Your task to perform on an android device: Open Google Maps Image 0: 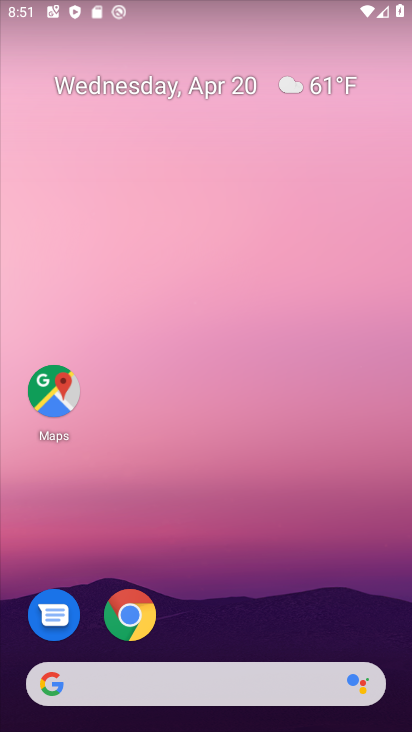
Step 0: drag from (216, 641) to (194, 3)
Your task to perform on an android device: Open Google Maps Image 1: 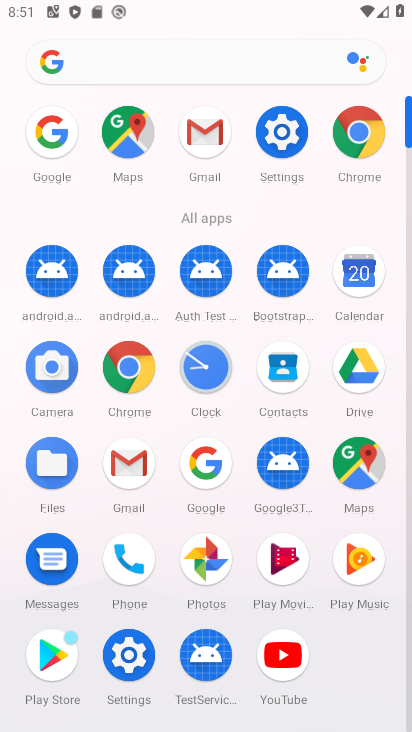
Step 1: click (363, 469)
Your task to perform on an android device: Open Google Maps Image 2: 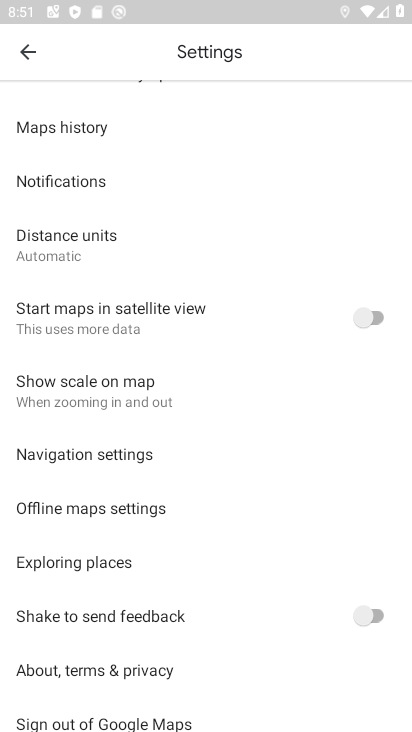
Step 2: click (28, 60)
Your task to perform on an android device: Open Google Maps Image 3: 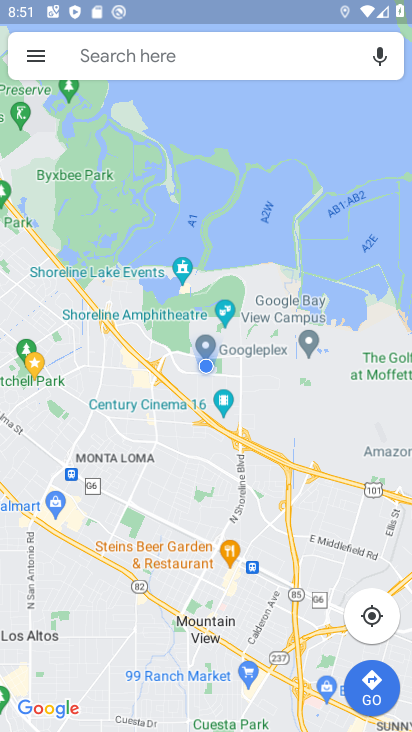
Step 3: task complete